Your task to perform on an android device: Search for vegetarian restaurants on Maps Image 0: 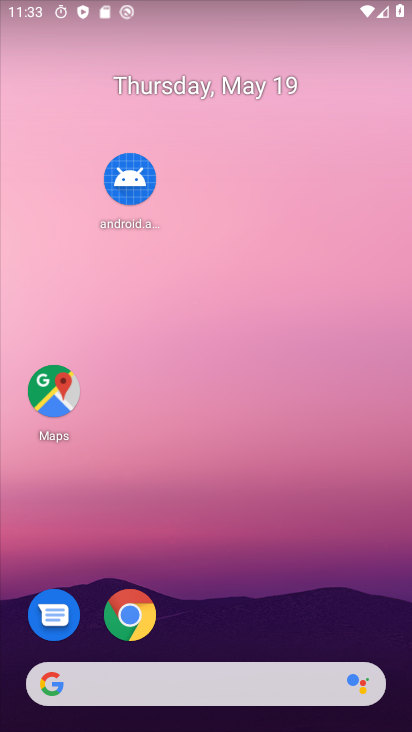
Step 0: click (43, 389)
Your task to perform on an android device: Search for vegetarian restaurants on Maps Image 1: 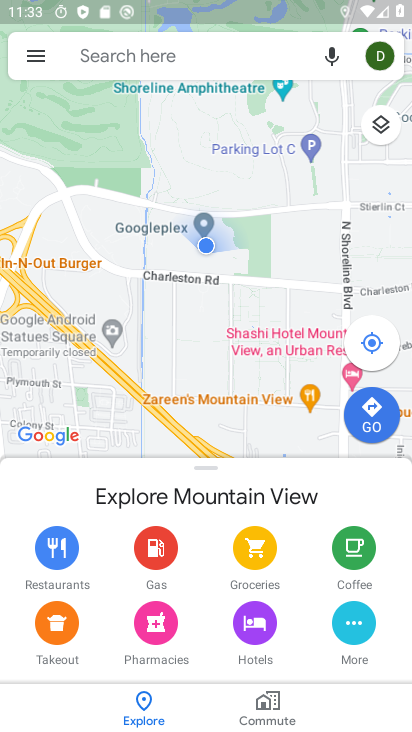
Step 1: click (213, 66)
Your task to perform on an android device: Search for vegetarian restaurants on Maps Image 2: 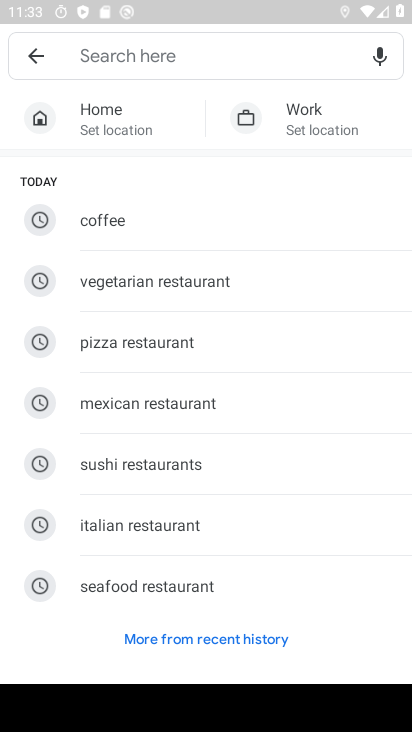
Step 2: click (180, 292)
Your task to perform on an android device: Search for vegetarian restaurants on Maps Image 3: 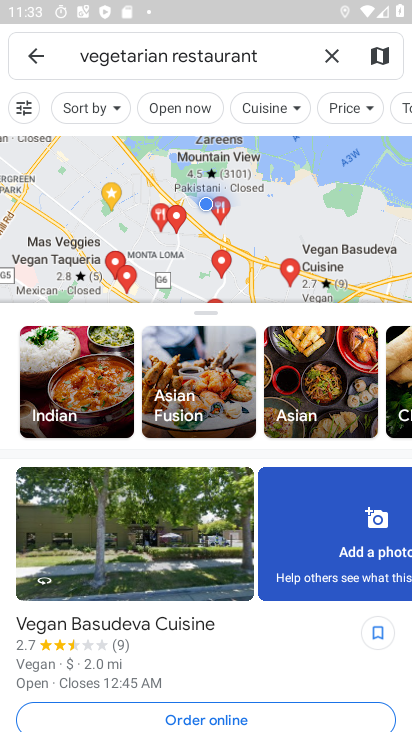
Step 3: task complete